Your task to perform on an android device: Check the news Image 0: 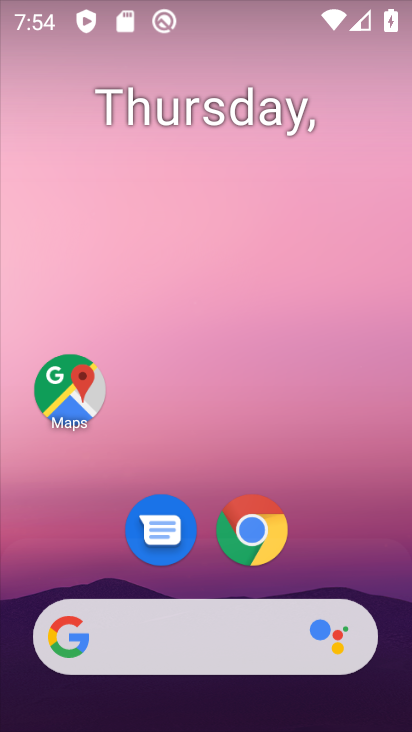
Step 0: drag from (328, 535) to (341, 100)
Your task to perform on an android device: Check the news Image 1: 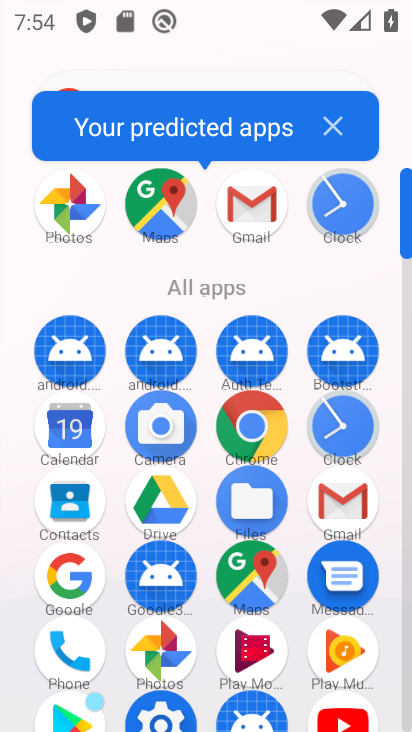
Step 1: click (60, 577)
Your task to perform on an android device: Check the news Image 2: 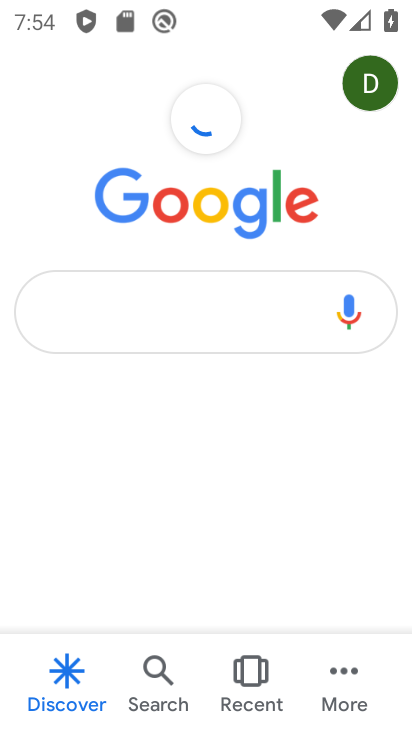
Step 2: click (159, 314)
Your task to perform on an android device: Check the news Image 3: 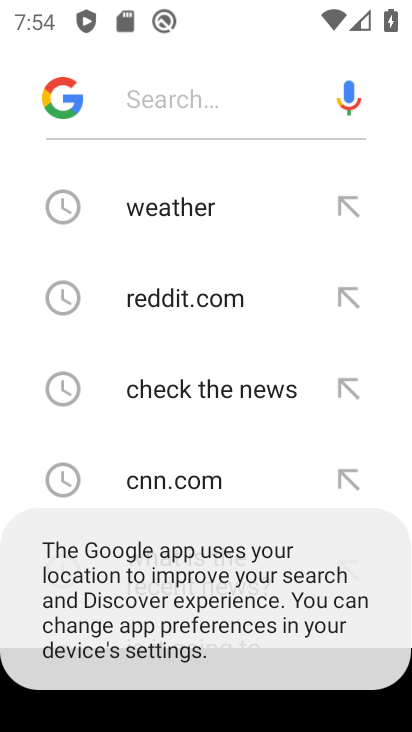
Step 3: drag from (210, 279) to (216, 95)
Your task to perform on an android device: Check the news Image 4: 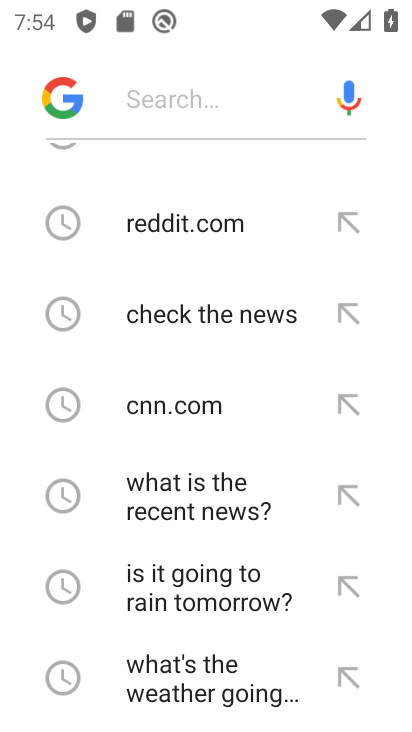
Step 4: drag from (230, 515) to (262, 213)
Your task to perform on an android device: Check the news Image 5: 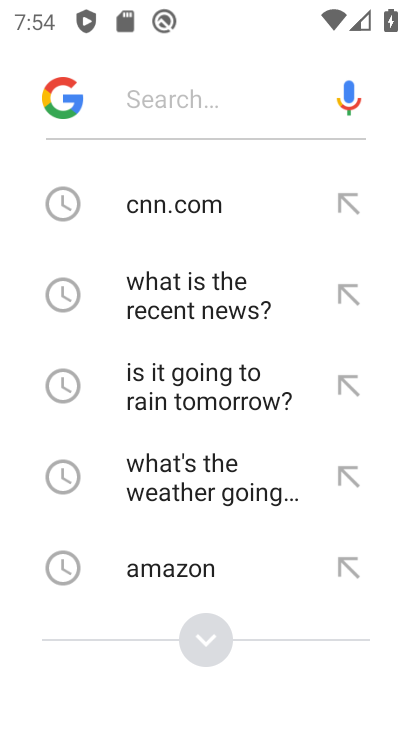
Step 5: drag from (213, 167) to (144, 667)
Your task to perform on an android device: Check the news Image 6: 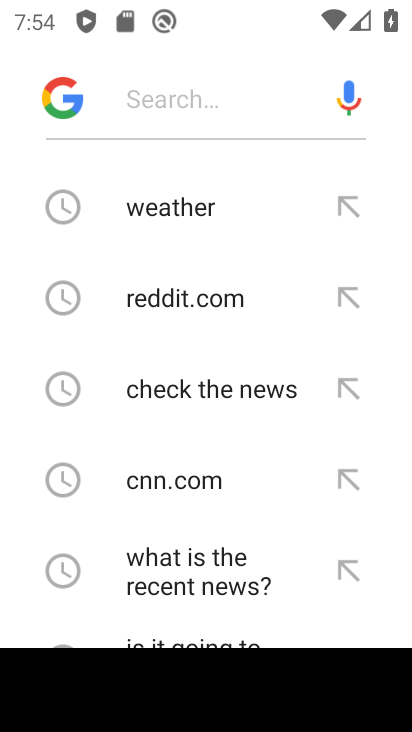
Step 6: type "news"
Your task to perform on an android device: Check the news Image 7: 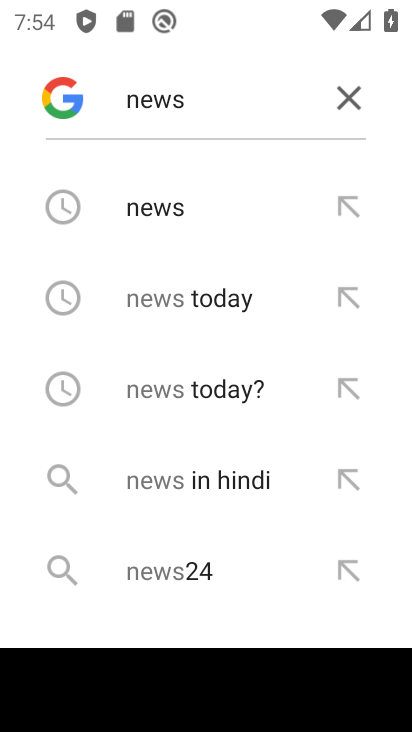
Step 7: click (191, 206)
Your task to perform on an android device: Check the news Image 8: 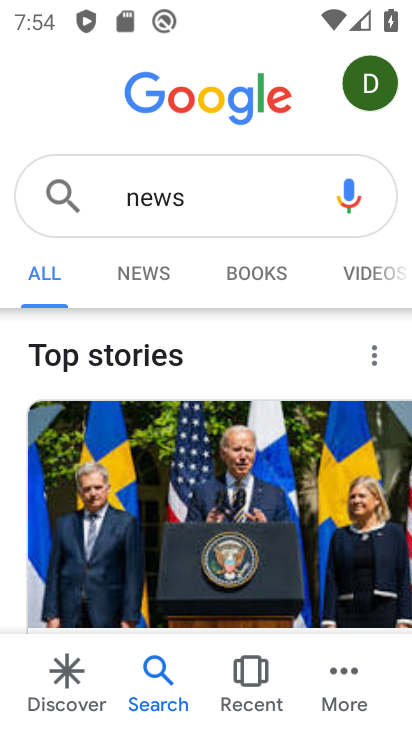
Step 8: task complete